Your task to perform on an android device: Clear all items from cart on ebay.com. Image 0: 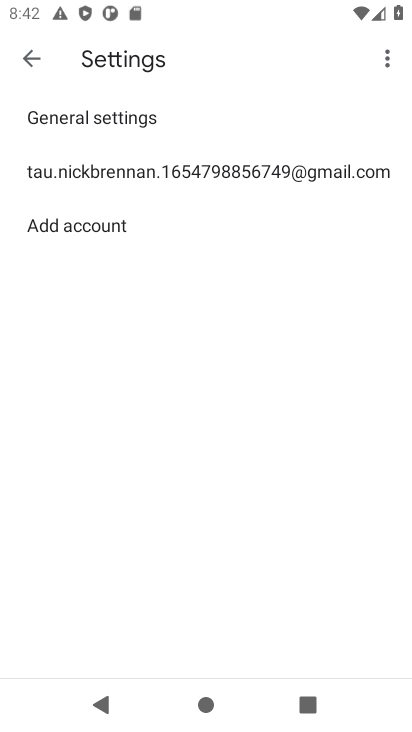
Step 0: press home button
Your task to perform on an android device: Clear all items from cart on ebay.com. Image 1: 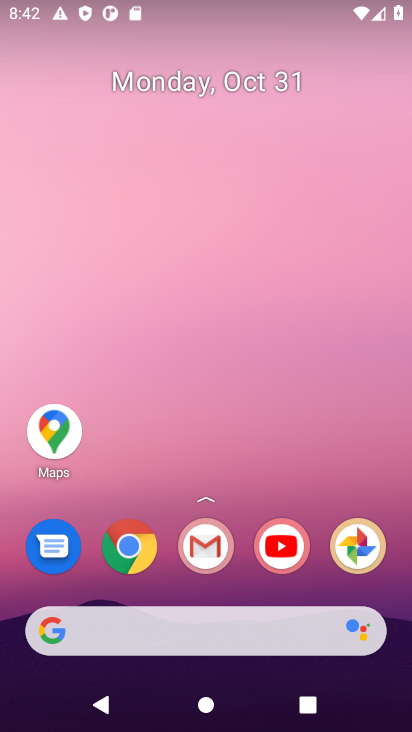
Step 1: click (128, 559)
Your task to perform on an android device: Clear all items from cart on ebay.com. Image 2: 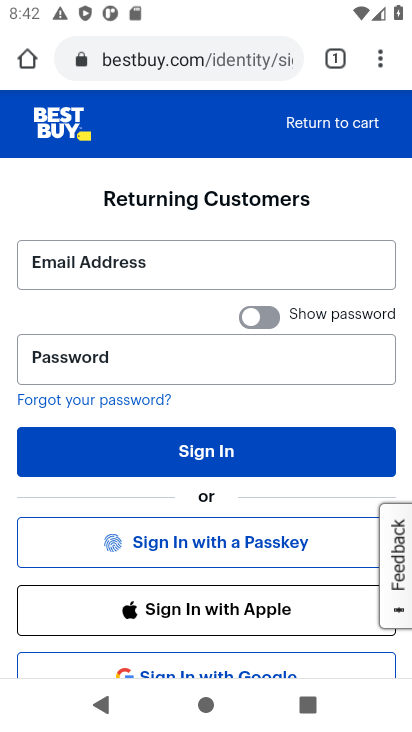
Step 2: click (203, 68)
Your task to perform on an android device: Clear all items from cart on ebay.com. Image 3: 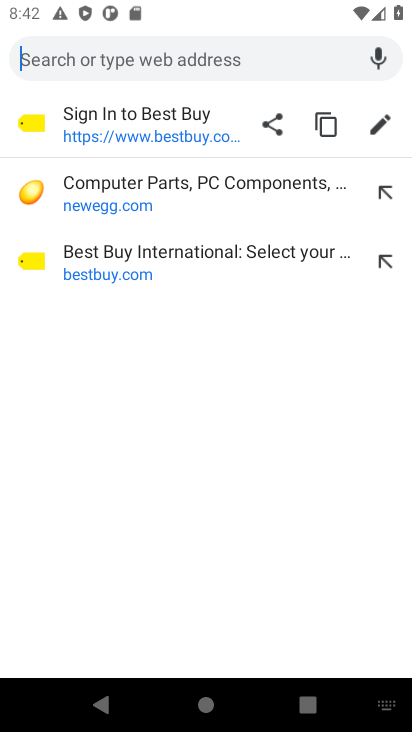
Step 3: type "ebay.com"
Your task to perform on an android device: Clear all items from cart on ebay.com. Image 4: 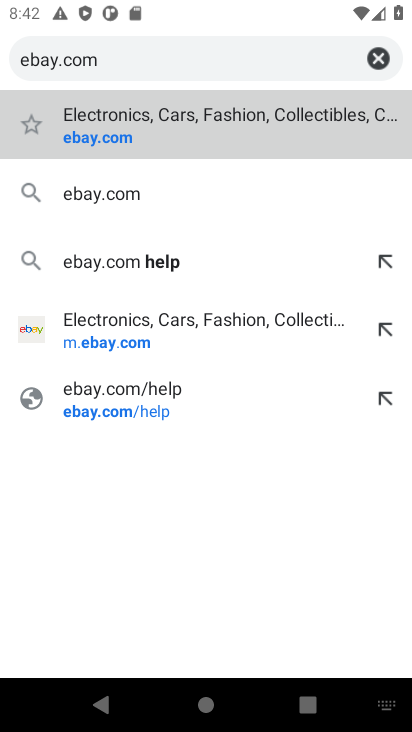
Step 4: press enter
Your task to perform on an android device: Clear all items from cart on ebay.com. Image 5: 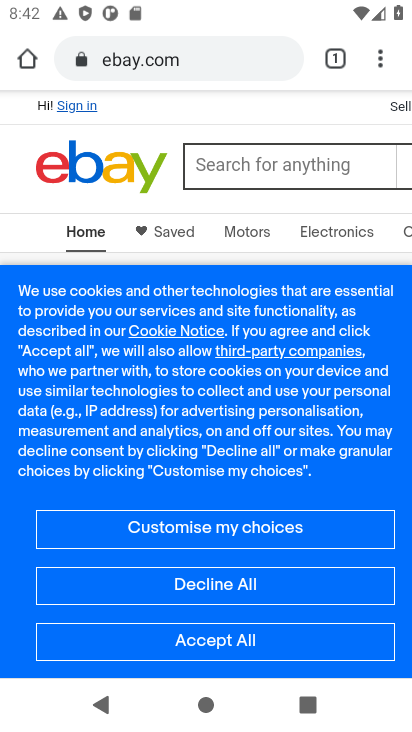
Step 5: click (247, 643)
Your task to perform on an android device: Clear all items from cart on ebay.com. Image 6: 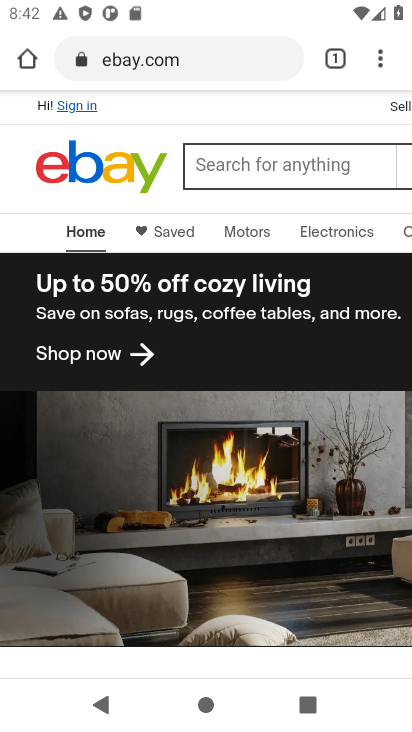
Step 6: drag from (28, 111) to (120, 116)
Your task to perform on an android device: Clear all items from cart on ebay.com. Image 7: 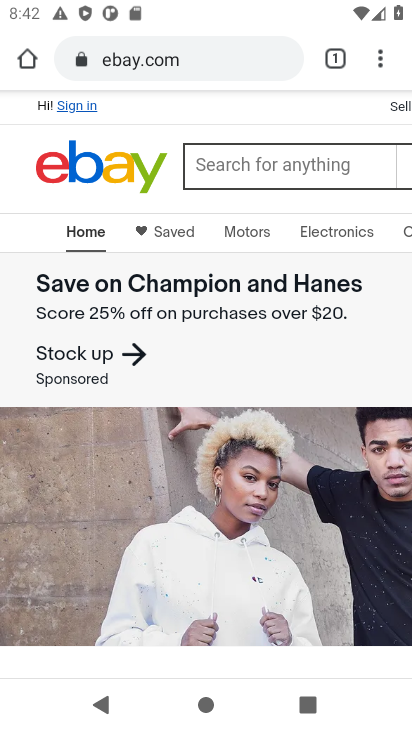
Step 7: drag from (119, 117) to (5, 95)
Your task to perform on an android device: Clear all items from cart on ebay.com. Image 8: 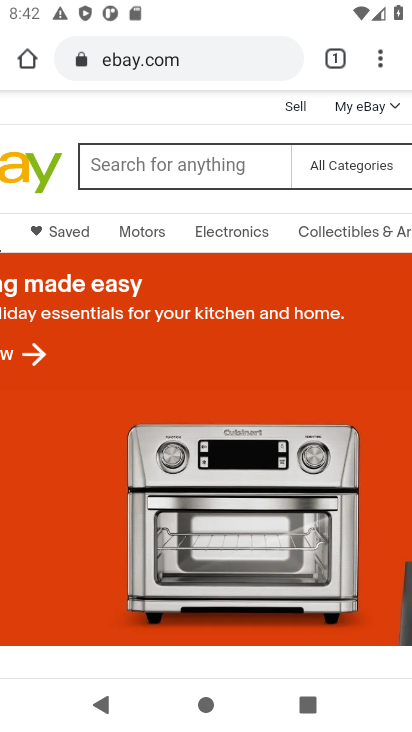
Step 8: drag from (105, 661) to (323, 665)
Your task to perform on an android device: Clear all items from cart on ebay.com. Image 9: 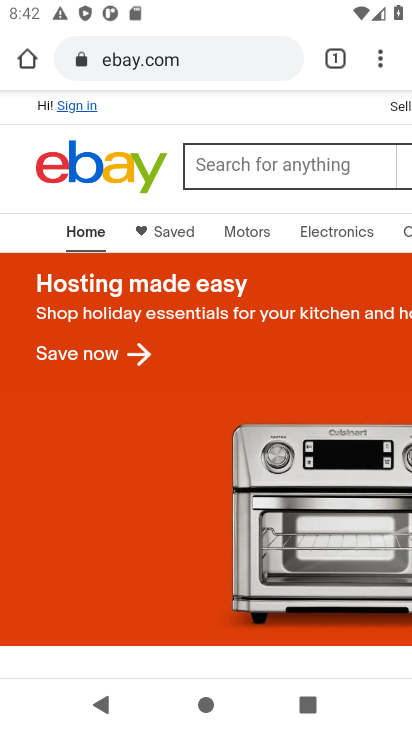
Step 9: drag from (105, 114) to (198, 110)
Your task to perform on an android device: Clear all items from cart on ebay.com. Image 10: 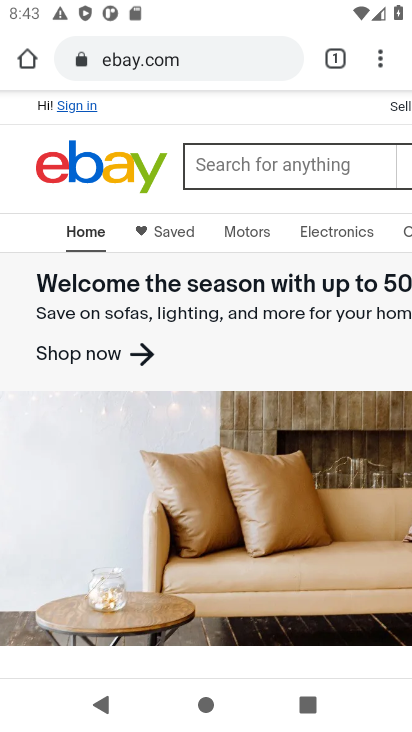
Step 10: drag from (354, 273) to (1, 227)
Your task to perform on an android device: Clear all items from cart on ebay.com. Image 11: 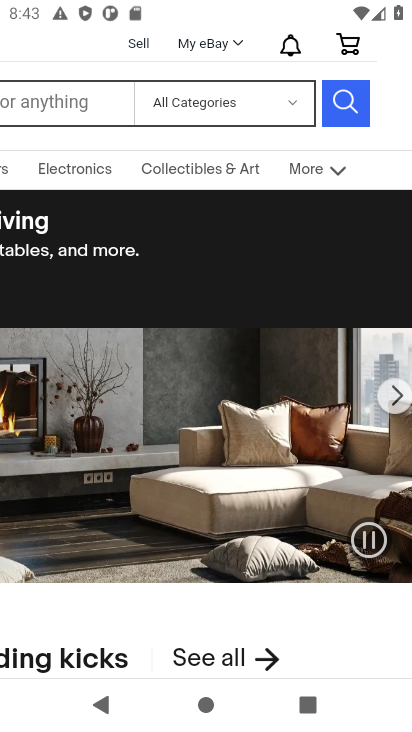
Step 11: click (342, 46)
Your task to perform on an android device: Clear all items from cart on ebay.com. Image 12: 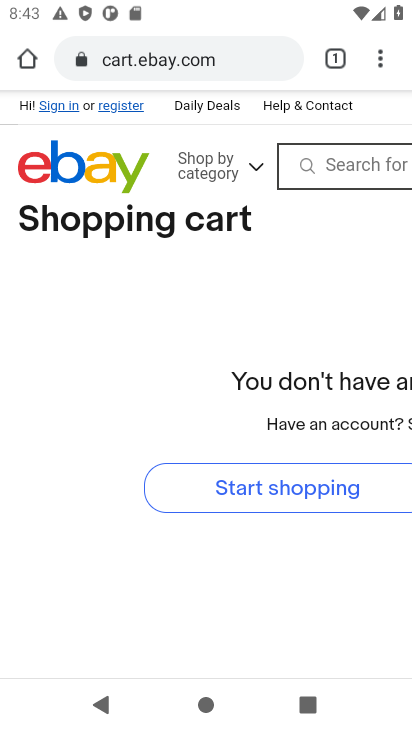
Step 12: task complete